Your task to perform on an android device: Go to settings Image 0: 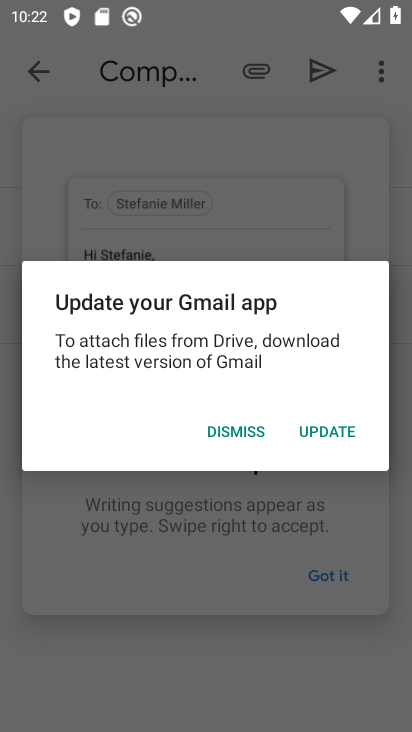
Step 0: press home button
Your task to perform on an android device: Go to settings Image 1: 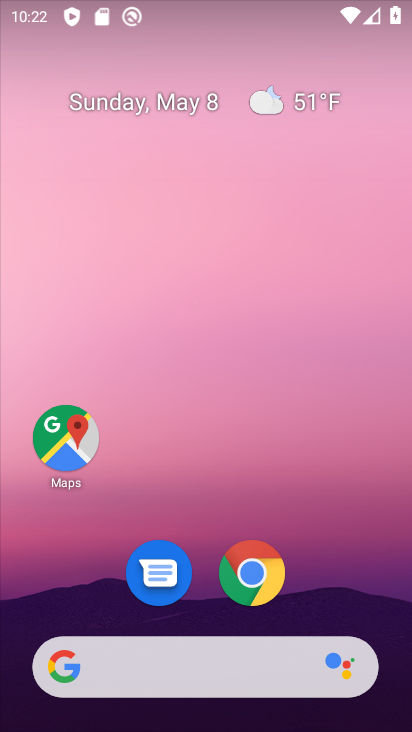
Step 1: drag from (305, 353) to (355, 269)
Your task to perform on an android device: Go to settings Image 2: 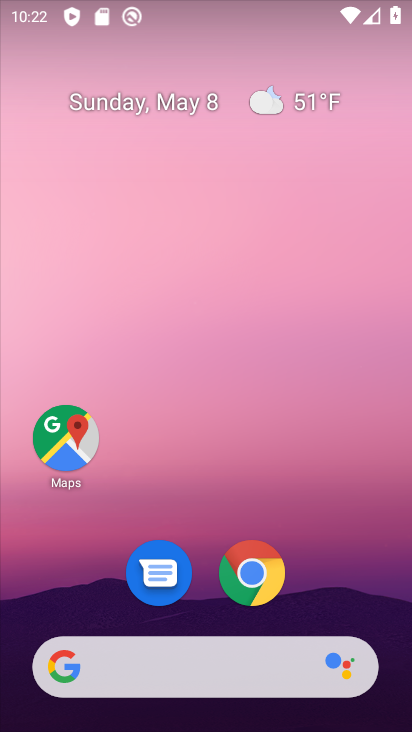
Step 2: drag from (179, 257) to (206, 14)
Your task to perform on an android device: Go to settings Image 3: 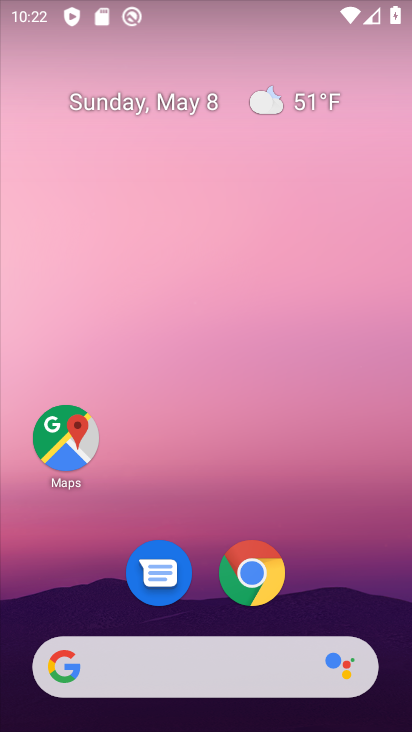
Step 3: drag from (172, 591) to (116, 150)
Your task to perform on an android device: Go to settings Image 4: 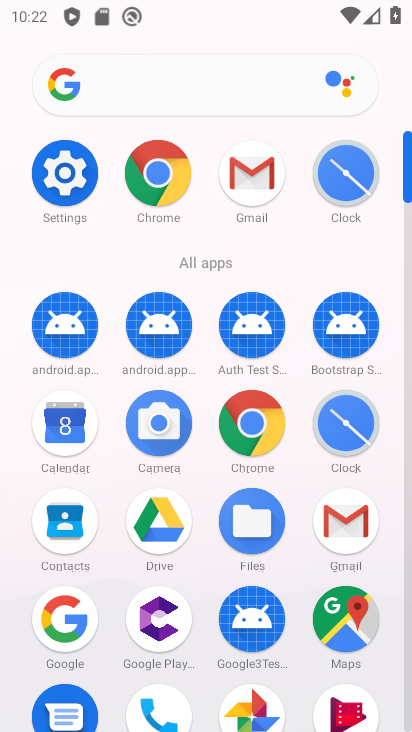
Step 4: click (73, 159)
Your task to perform on an android device: Go to settings Image 5: 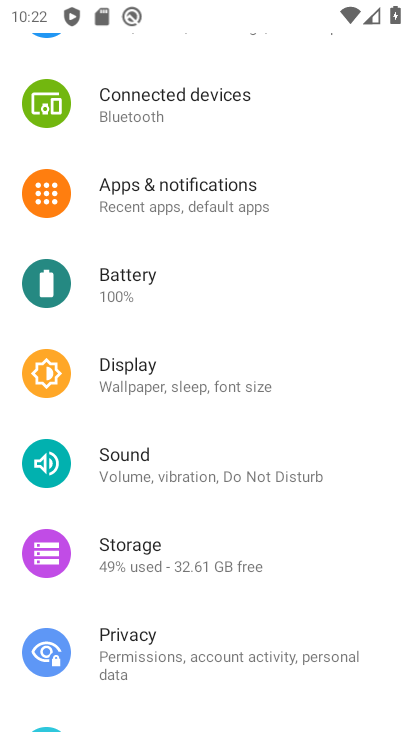
Step 5: task complete